Your task to perform on an android device: delete the emails in spam in the gmail app Image 0: 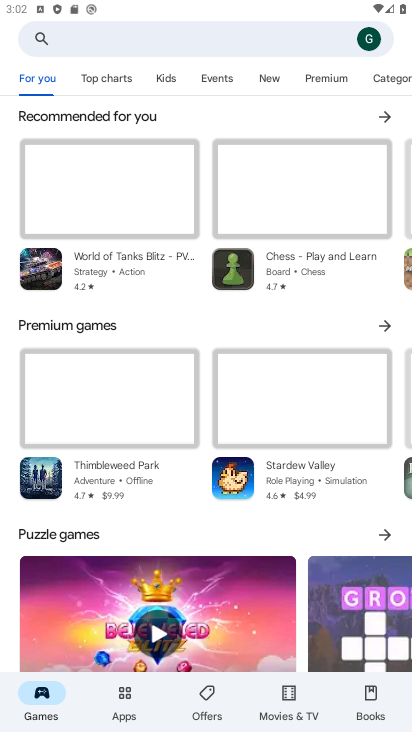
Step 0: press home button
Your task to perform on an android device: delete the emails in spam in the gmail app Image 1: 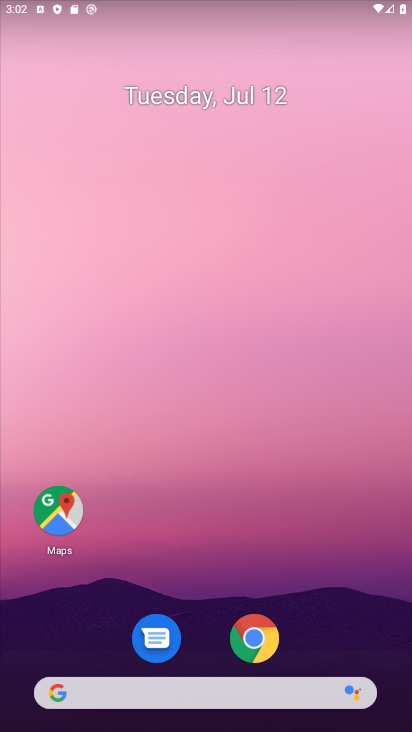
Step 1: click (268, 641)
Your task to perform on an android device: delete the emails in spam in the gmail app Image 2: 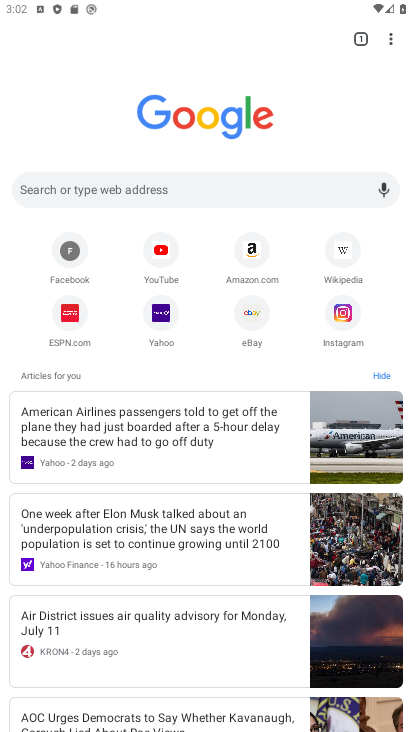
Step 2: click (398, 43)
Your task to perform on an android device: delete the emails in spam in the gmail app Image 3: 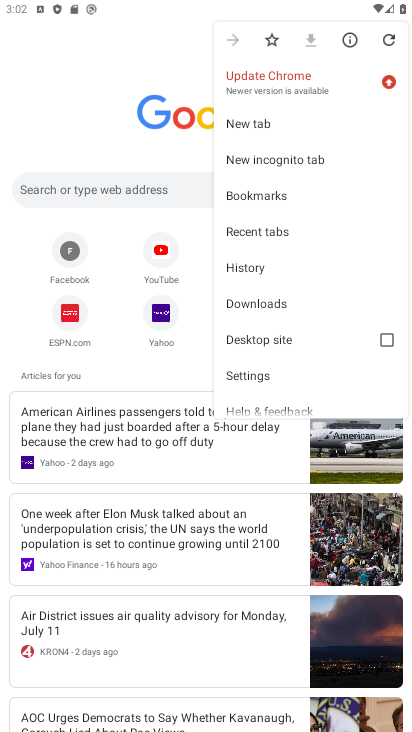
Step 3: press home button
Your task to perform on an android device: delete the emails in spam in the gmail app Image 4: 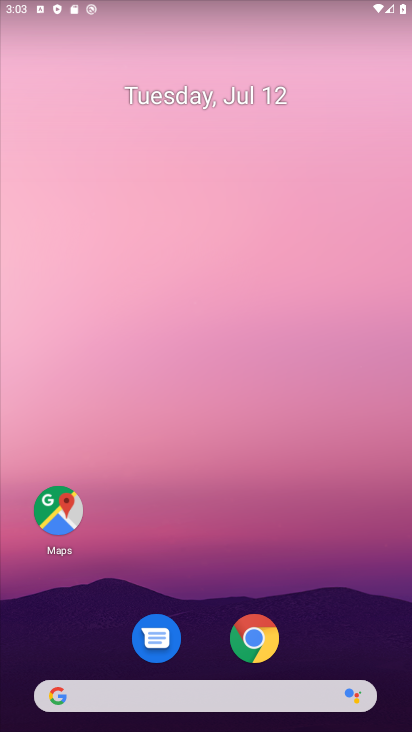
Step 4: drag from (214, 253) to (211, 140)
Your task to perform on an android device: delete the emails in spam in the gmail app Image 5: 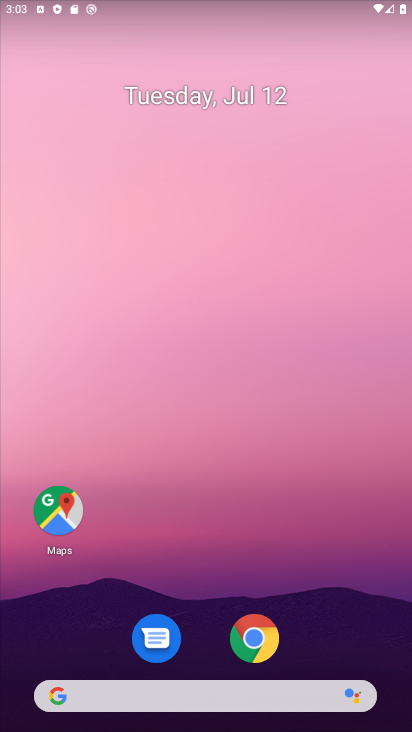
Step 5: drag from (213, 654) to (190, 120)
Your task to perform on an android device: delete the emails in spam in the gmail app Image 6: 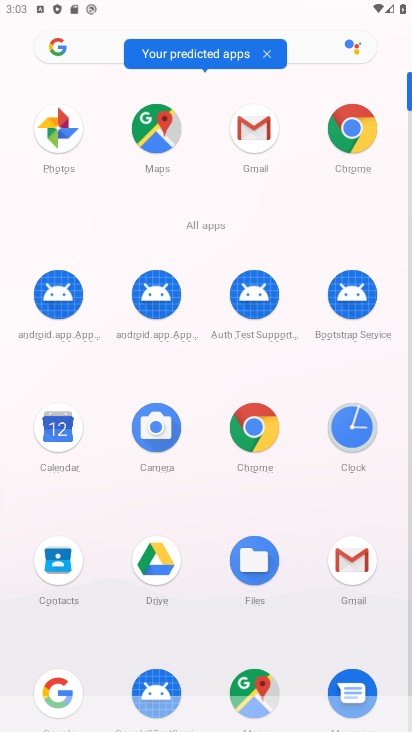
Step 6: click (267, 130)
Your task to perform on an android device: delete the emails in spam in the gmail app Image 7: 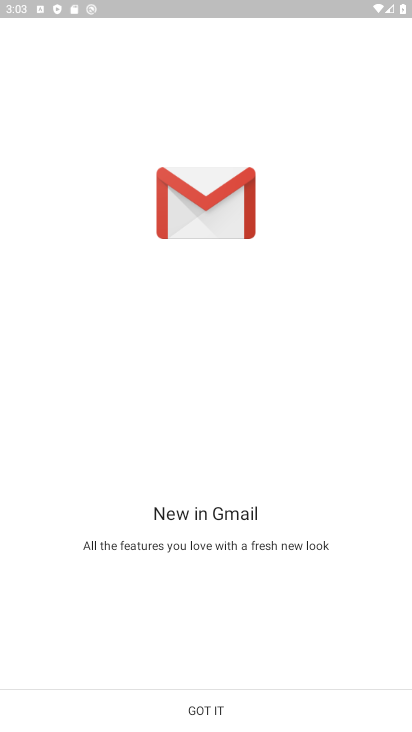
Step 7: click (153, 707)
Your task to perform on an android device: delete the emails in spam in the gmail app Image 8: 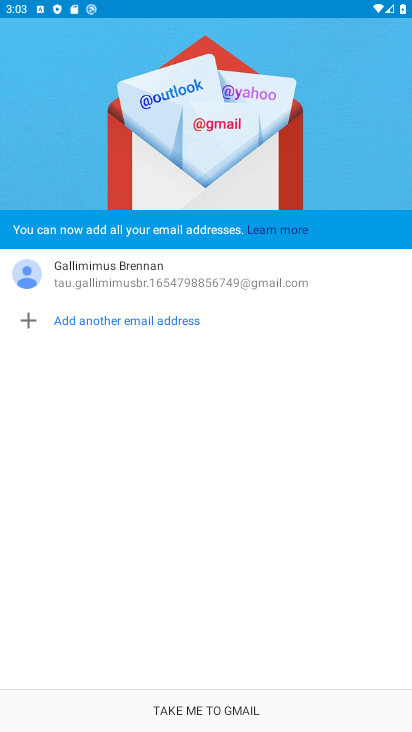
Step 8: click (153, 707)
Your task to perform on an android device: delete the emails in spam in the gmail app Image 9: 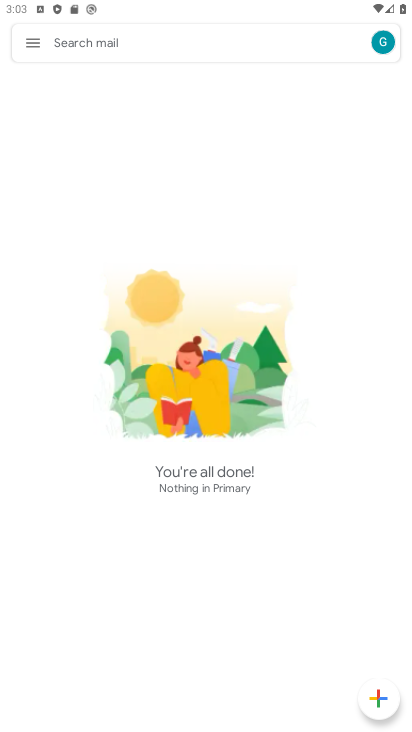
Step 9: click (45, 46)
Your task to perform on an android device: delete the emails in spam in the gmail app Image 10: 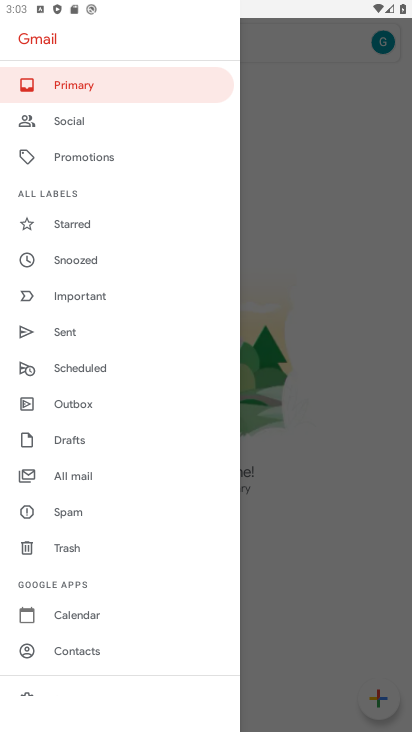
Step 10: click (89, 519)
Your task to perform on an android device: delete the emails in spam in the gmail app Image 11: 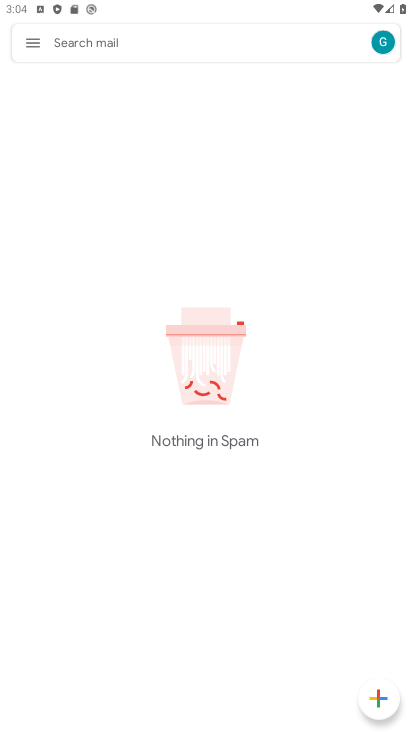
Step 11: task complete